Your task to perform on an android device: Open wifi settings Image 0: 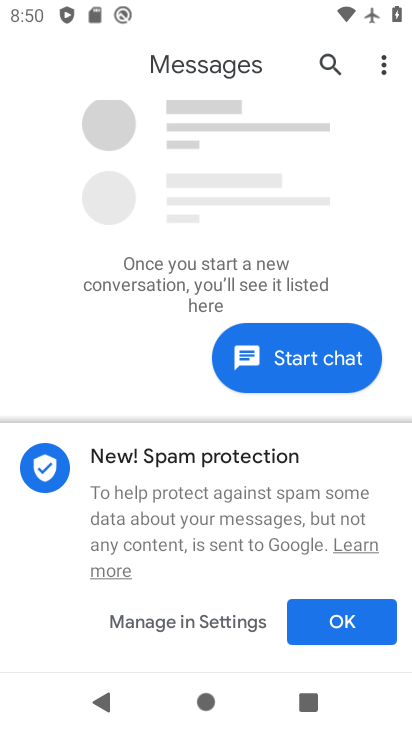
Step 0: press home button
Your task to perform on an android device: Open wifi settings Image 1: 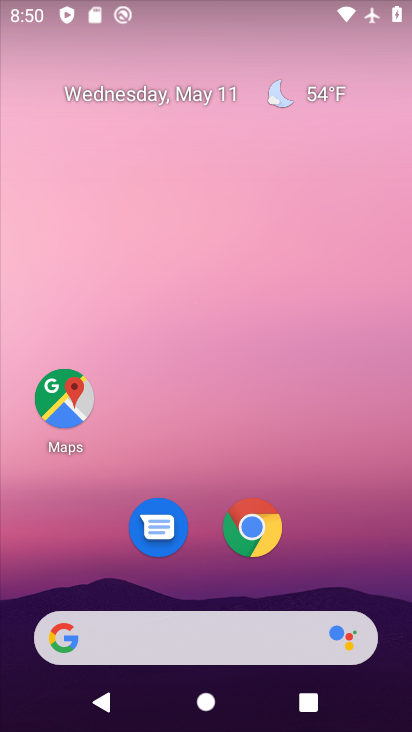
Step 1: drag from (314, 415) to (272, 123)
Your task to perform on an android device: Open wifi settings Image 2: 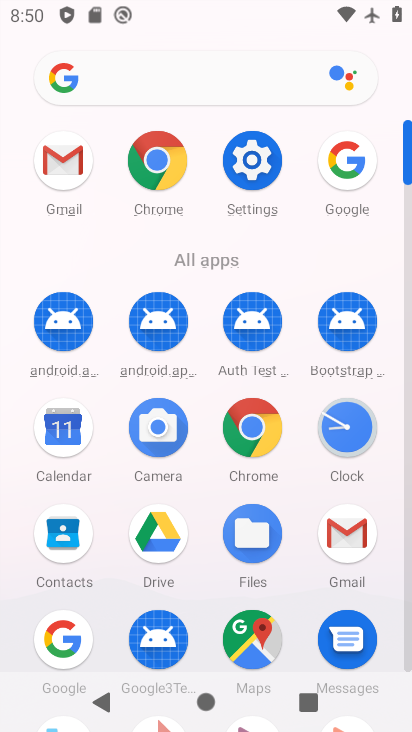
Step 2: click (252, 172)
Your task to perform on an android device: Open wifi settings Image 3: 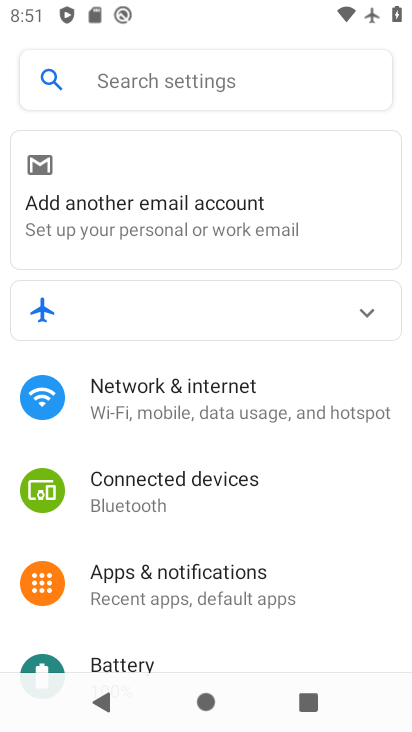
Step 3: click (256, 415)
Your task to perform on an android device: Open wifi settings Image 4: 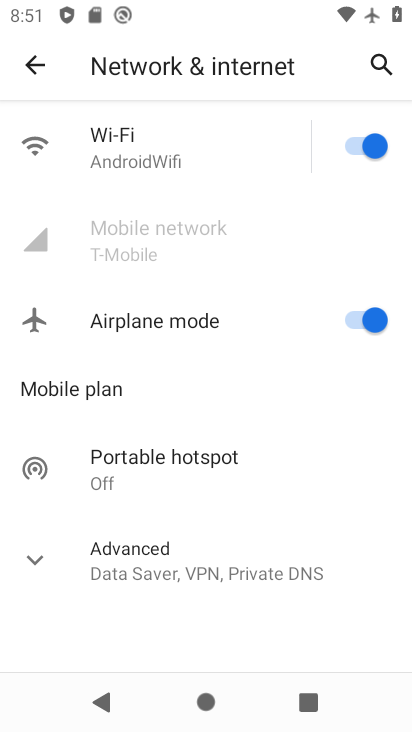
Step 4: click (161, 165)
Your task to perform on an android device: Open wifi settings Image 5: 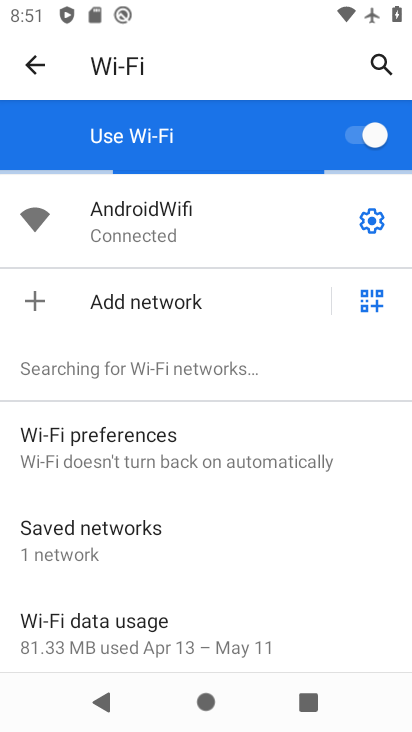
Step 5: task complete